Your task to perform on an android device: Search for pizza restaurants on Maps Image 0: 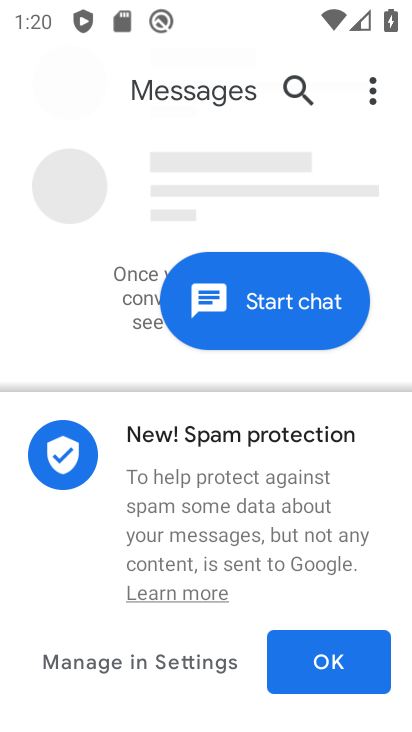
Step 0: press home button
Your task to perform on an android device: Search for pizza restaurants on Maps Image 1: 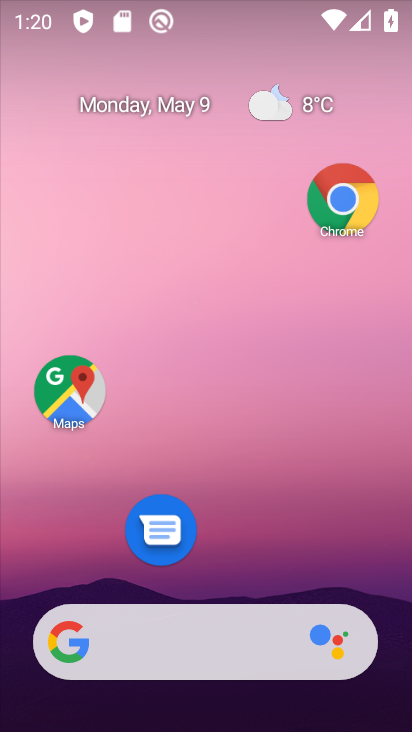
Step 1: click (71, 392)
Your task to perform on an android device: Search for pizza restaurants on Maps Image 2: 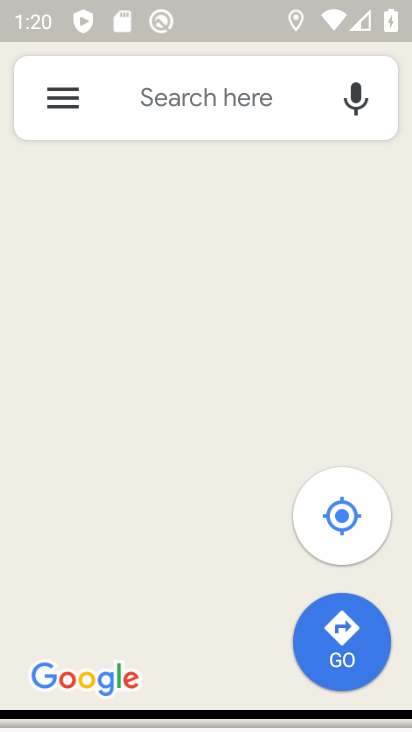
Step 2: click (184, 102)
Your task to perform on an android device: Search for pizza restaurants on Maps Image 3: 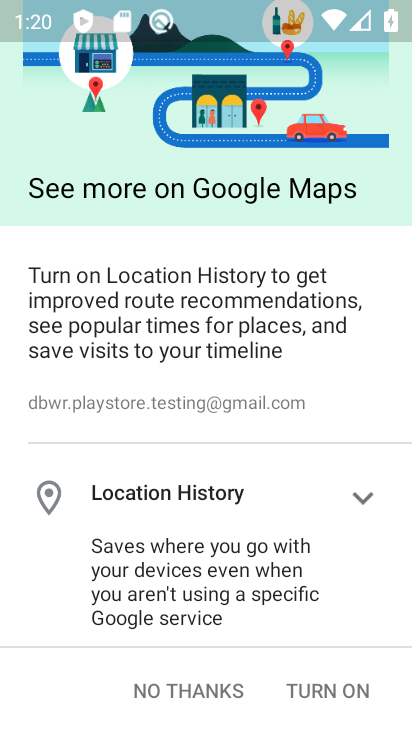
Step 3: click (195, 688)
Your task to perform on an android device: Search for pizza restaurants on Maps Image 4: 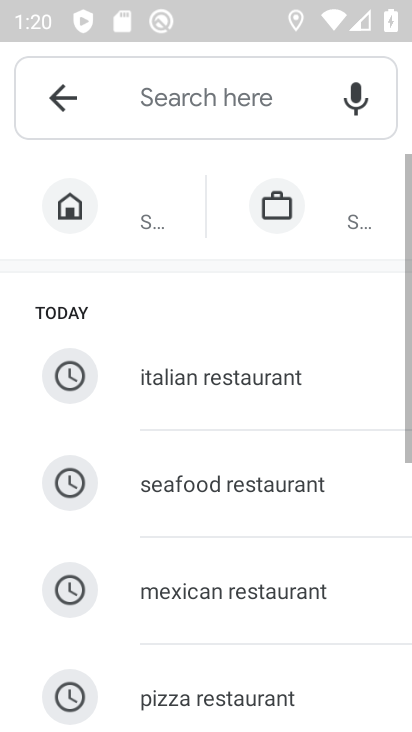
Step 4: click (190, 102)
Your task to perform on an android device: Search for pizza restaurants on Maps Image 5: 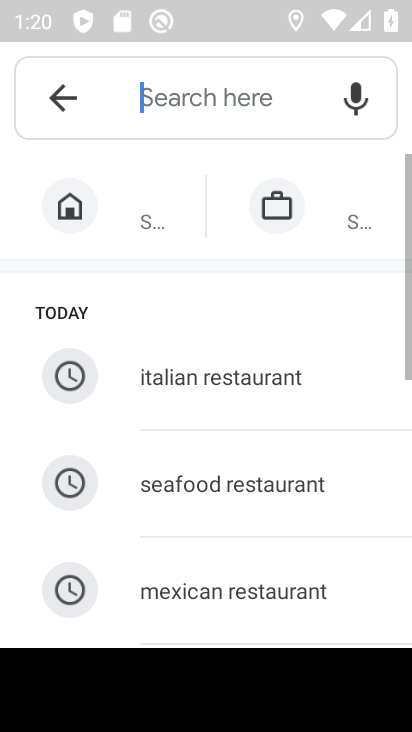
Step 5: drag from (221, 495) to (235, 180)
Your task to perform on an android device: Search for pizza restaurants on Maps Image 6: 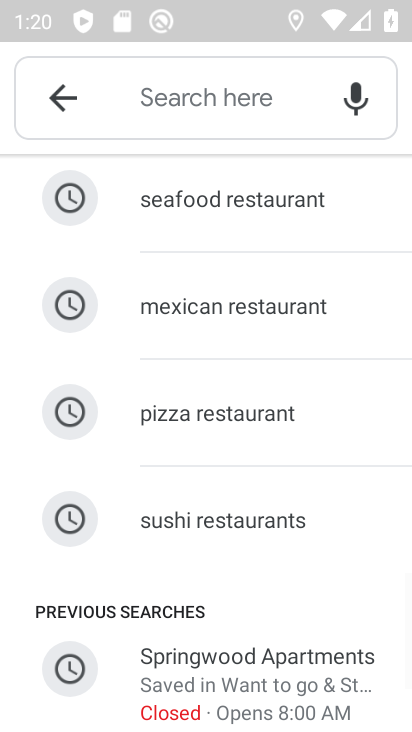
Step 6: click (211, 419)
Your task to perform on an android device: Search for pizza restaurants on Maps Image 7: 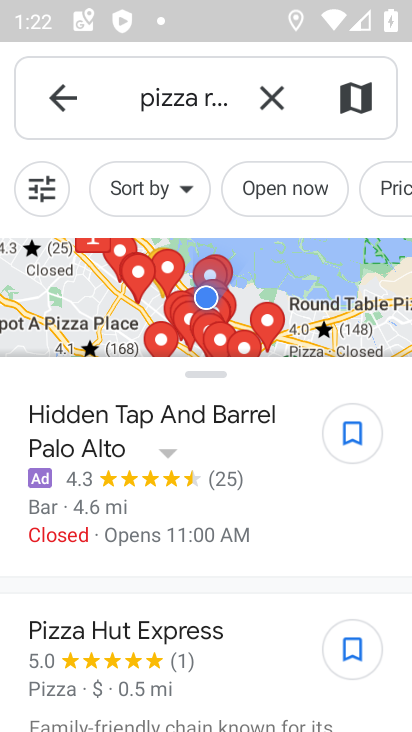
Step 7: task complete